Your task to perform on an android device: See recent photos Image 0: 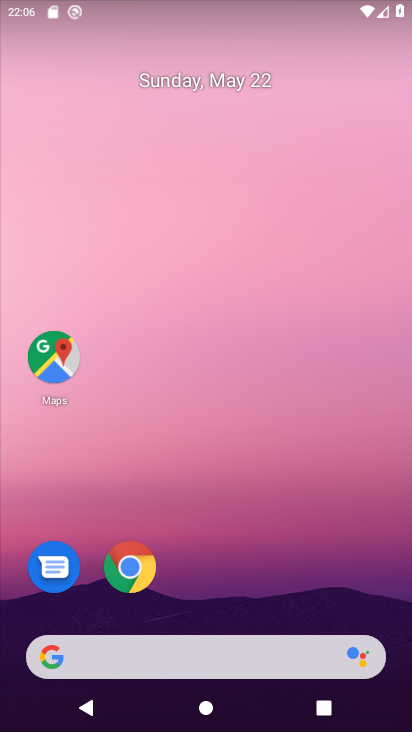
Step 0: press home button
Your task to perform on an android device: See recent photos Image 1: 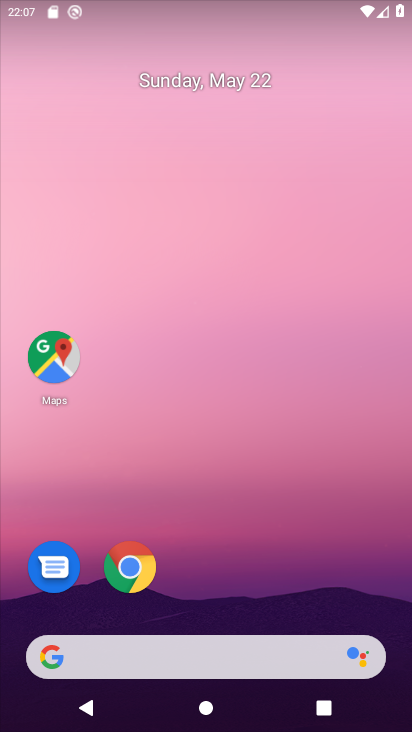
Step 1: drag from (219, 611) to (212, 3)
Your task to perform on an android device: See recent photos Image 2: 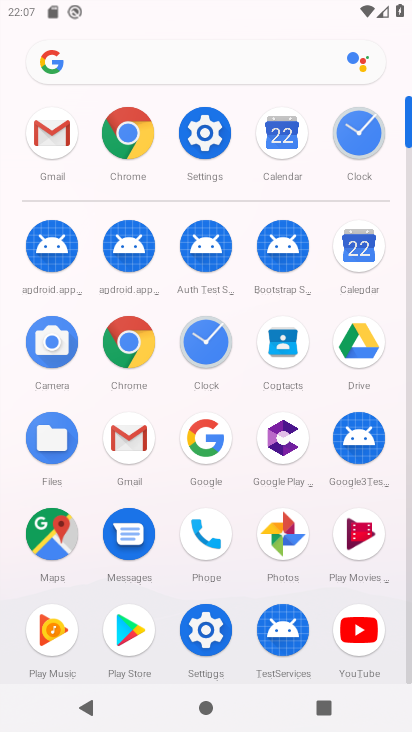
Step 2: click (282, 523)
Your task to perform on an android device: See recent photos Image 3: 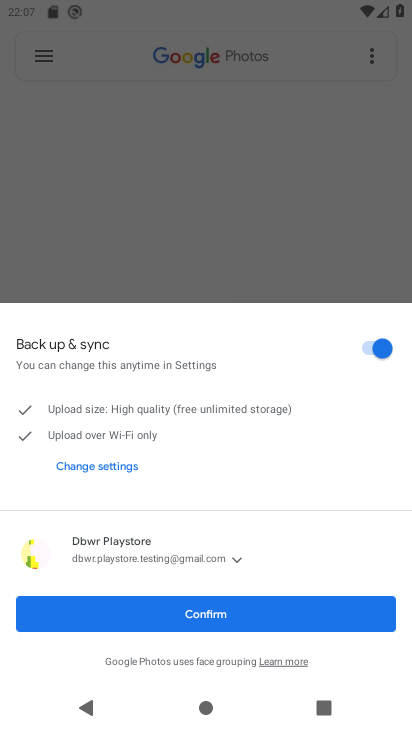
Step 3: click (205, 611)
Your task to perform on an android device: See recent photos Image 4: 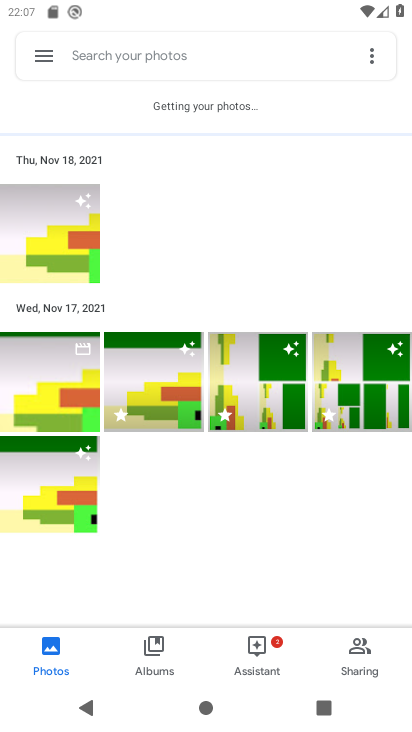
Step 4: task complete